Your task to perform on an android device: What's on my calendar tomorrow? Image 0: 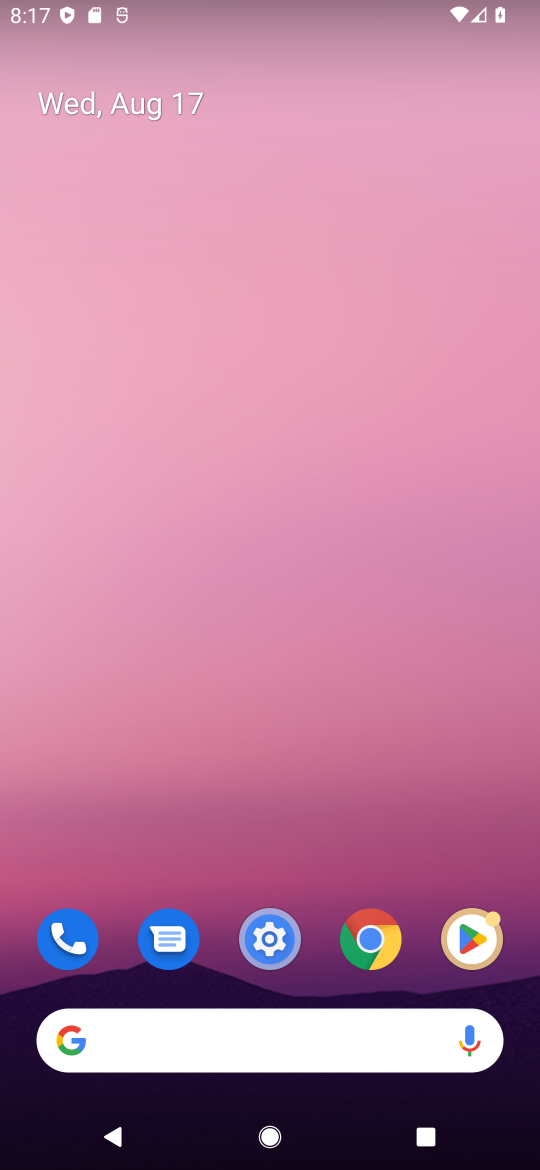
Step 0: drag from (283, 875) to (286, 46)
Your task to perform on an android device: What's on my calendar tomorrow? Image 1: 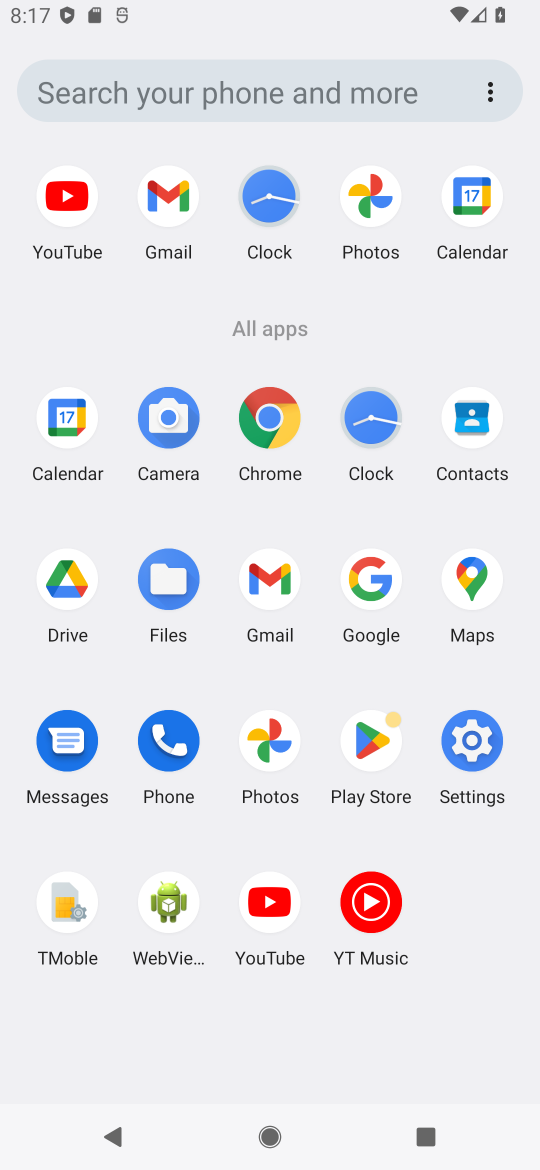
Step 1: click (68, 412)
Your task to perform on an android device: What's on my calendar tomorrow? Image 2: 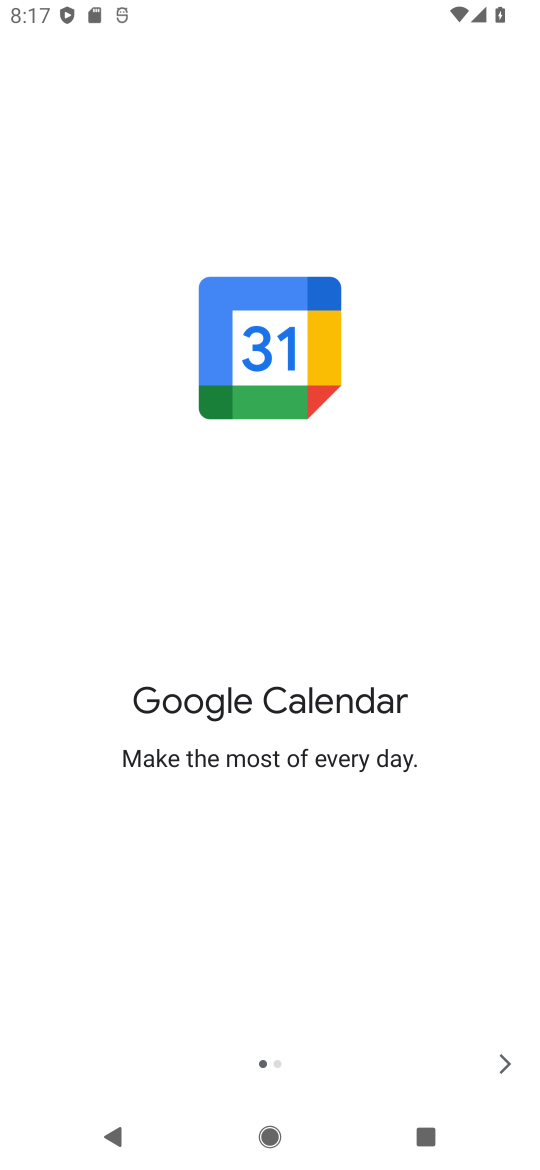
Step 2: click (505, 1058)
Your task to perform on an android device: What's on my calendar tomorrow? Image 3: 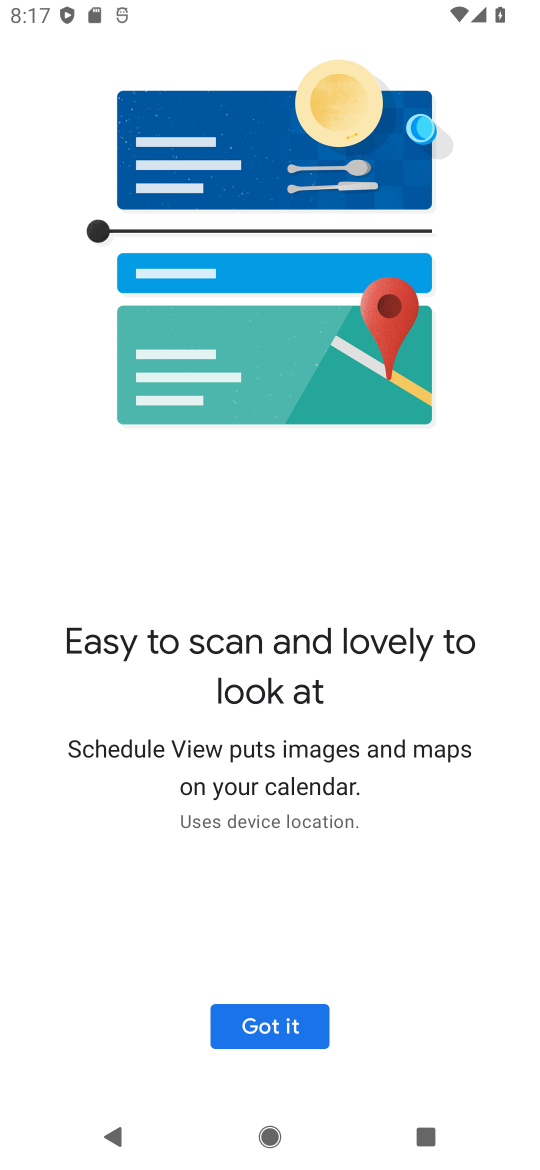
Step 3: click (499, 1064)
Your task to perform on an android device: What's on my calendar tomorrow? Image 4: 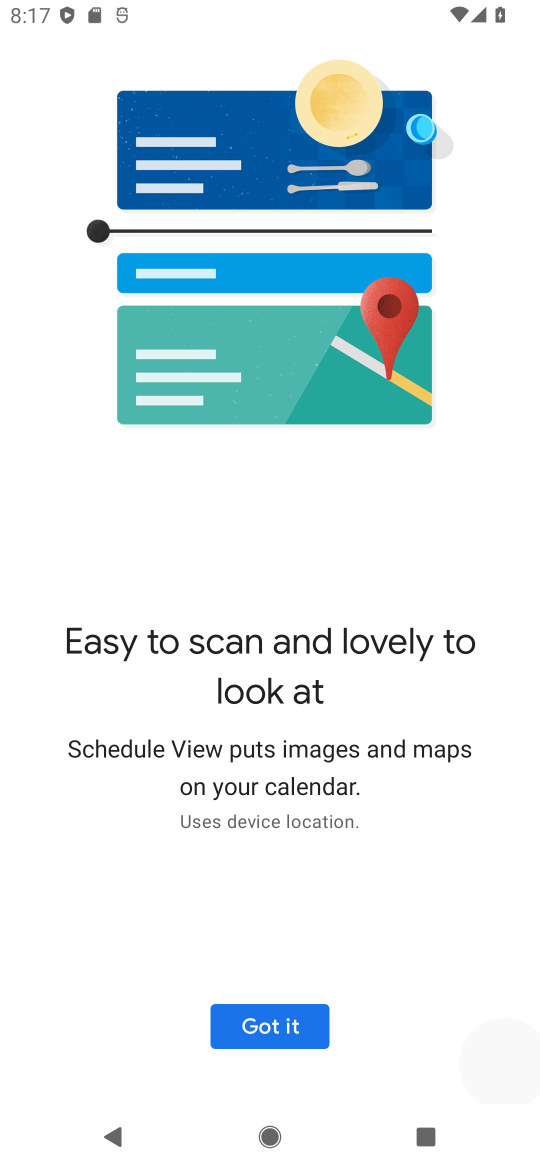
Step 4: click (289, 1031)
Your task to perform on an android device: What's on my calendar tomorrow? Image 5: 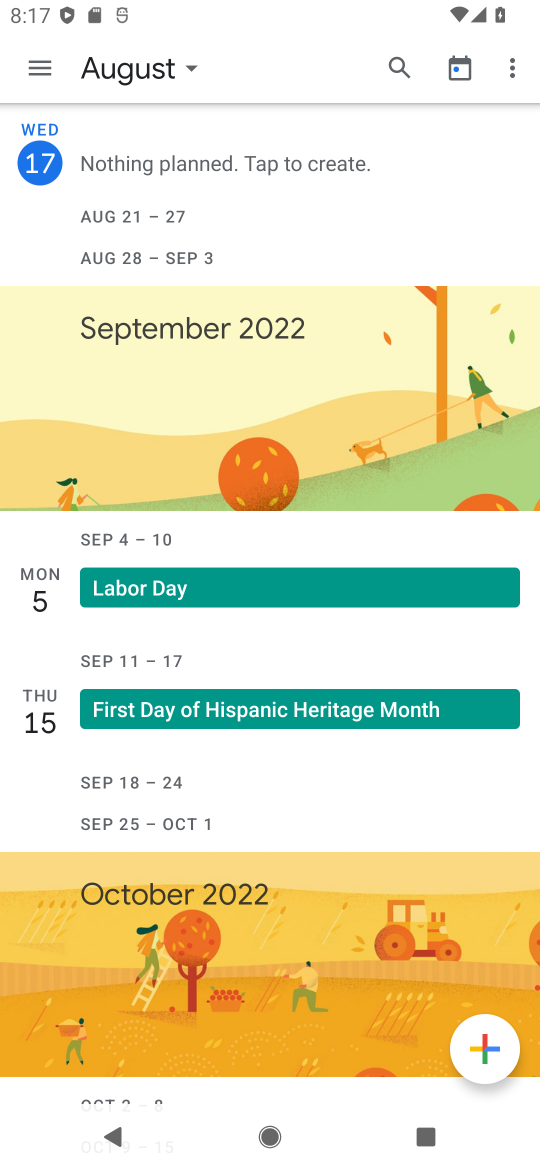
Step 5: click (162, 62)
Your task to perform on an android device: What's on my calendar tomorrow? Image 6: 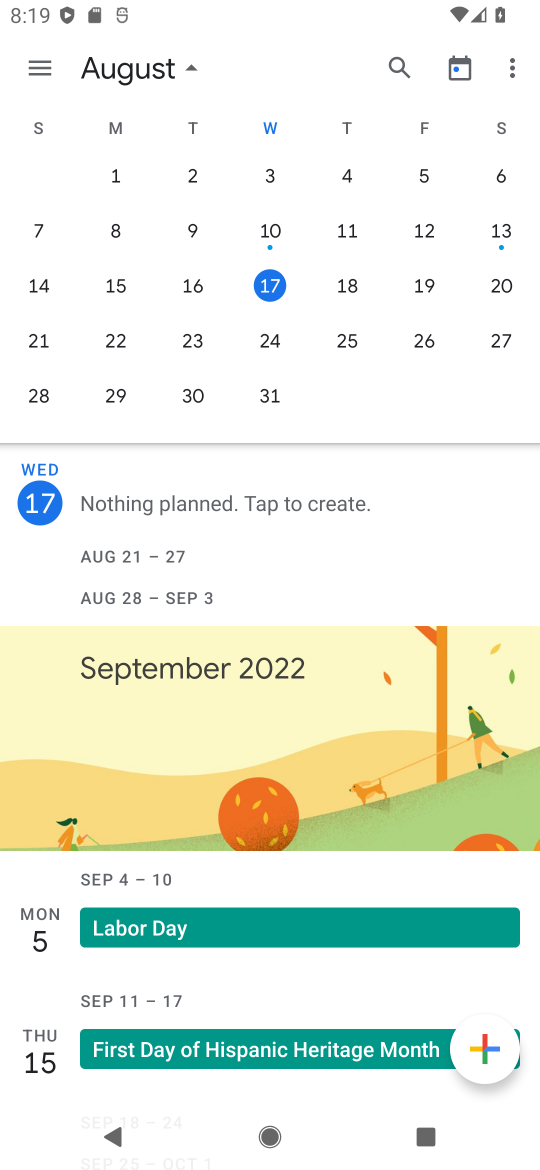
Step 6: drag from (409, 251) to (14, 251)
Your task to perform on an android device: What's on my calendar tomorrow? Image 7: 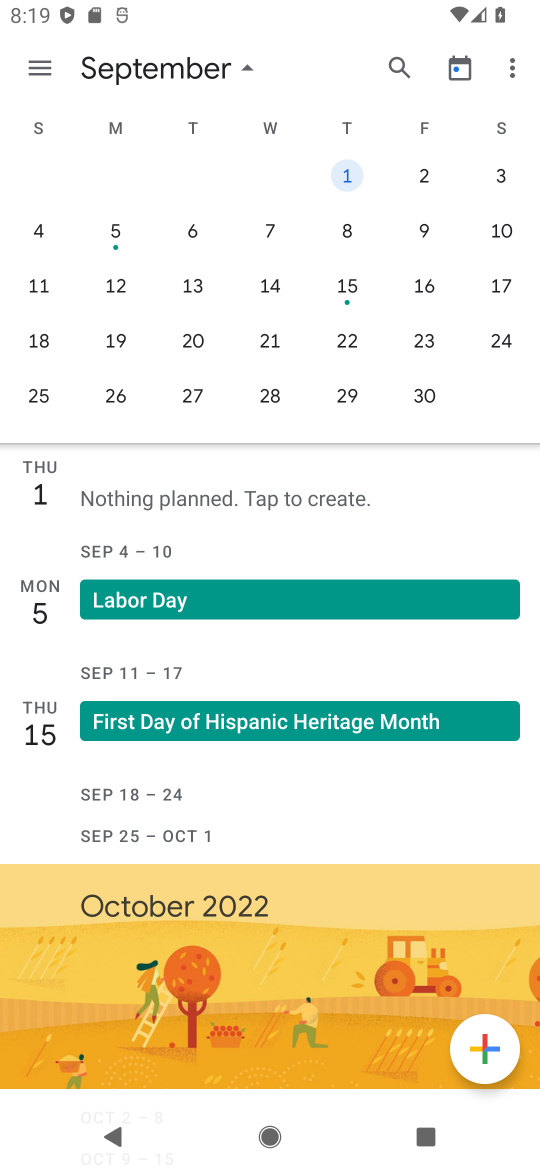
Step 7: drag from (31, 211) to (527, 480)
Your task to perform on an android device: What's on my calendar tomorrow? Image 8: 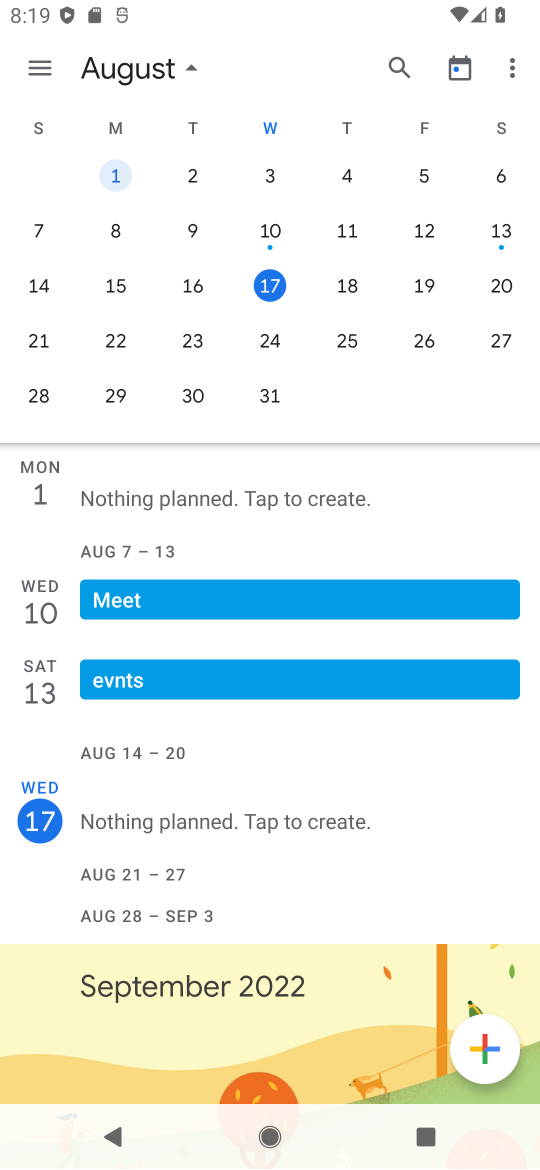
Step 8: click (353, 275)
Your task to perform on an android device: What's on my calendar tomorrow? Image 9: 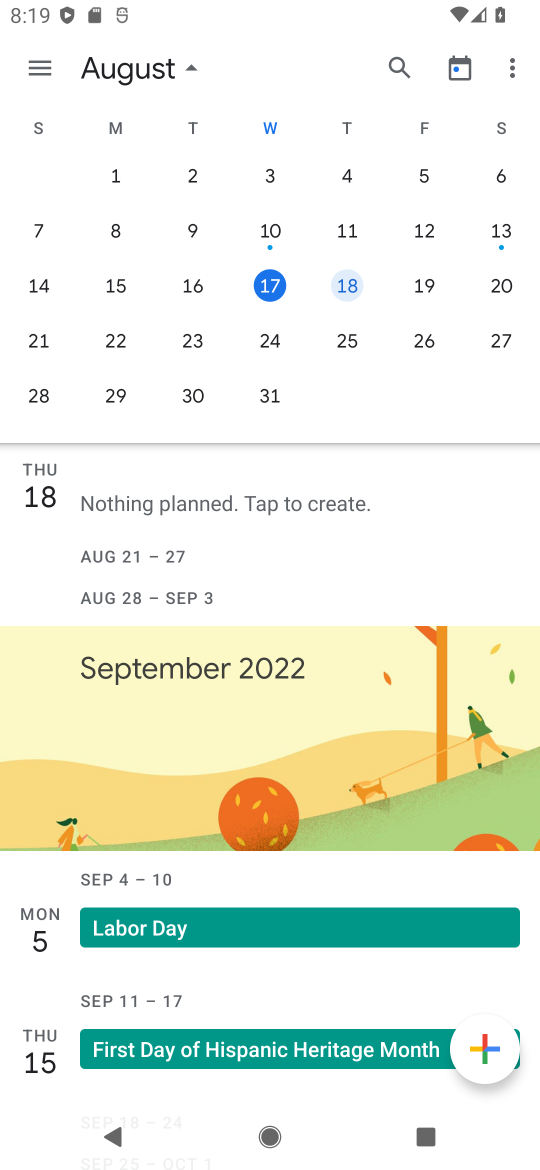
Step 9: task complete